Your task to perform on an android device: Open display settings Image 0: 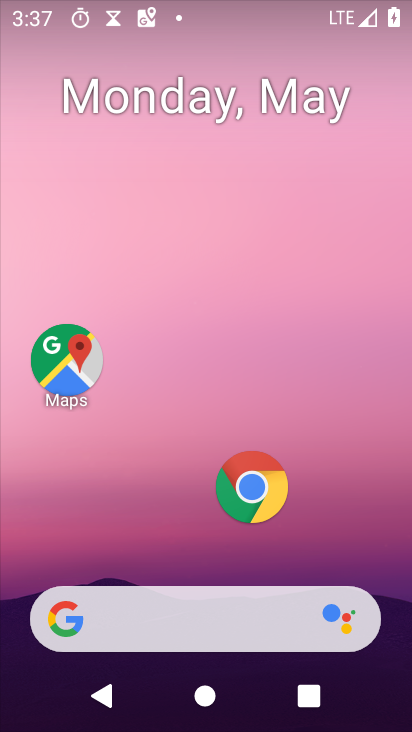
Step 0: drag from (164, 569) to (166, 66)
Your task to perform on an android device: Open display settings Image 1: 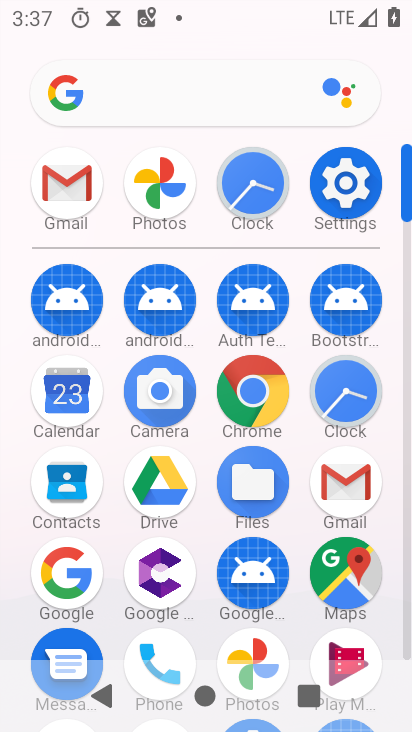
Step 1: click (345, 180)
Your task to perform on an android device: Open display settings Image 2: 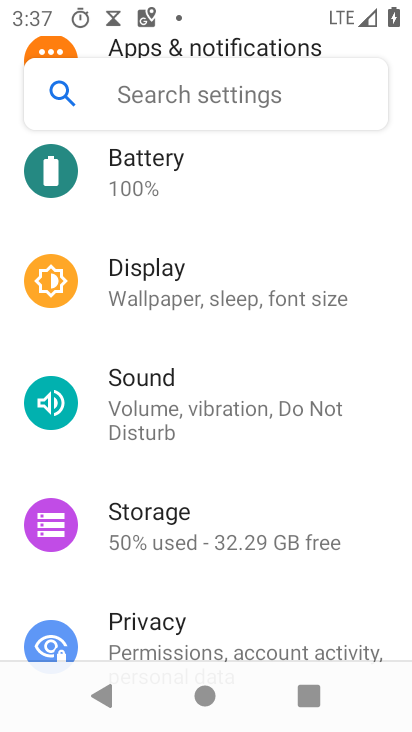
Step 2: click (225, 290)
Your task to perform on an android device: Open display settings Image 3: 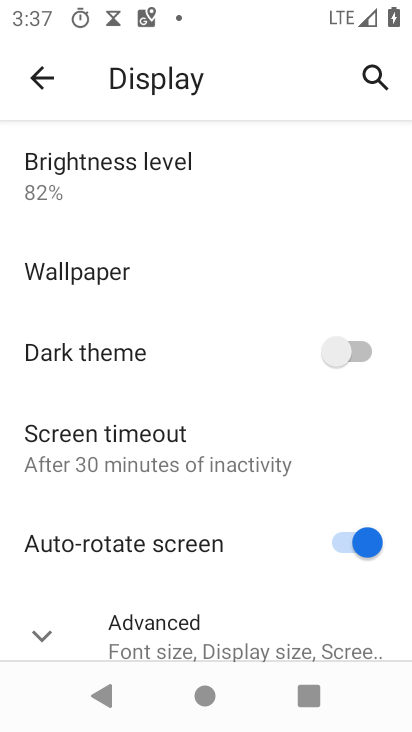
Step 3: task complete